Your task to perform on an android device: Go to Reddit.com Image 0: 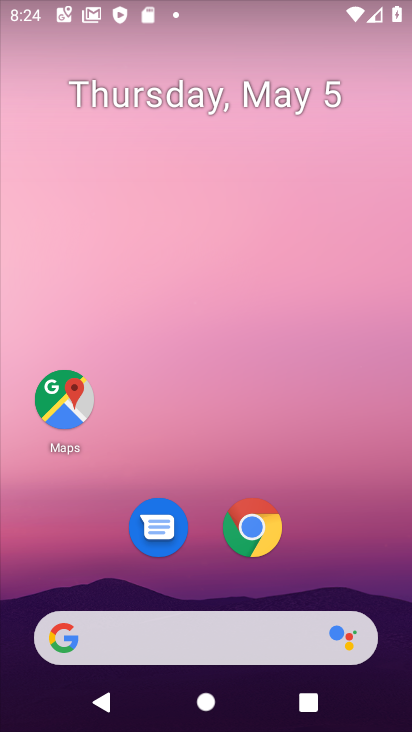
Step 0: click (263, 536)
Your task to perform on an android device: Go to Reddit.com Image 1: 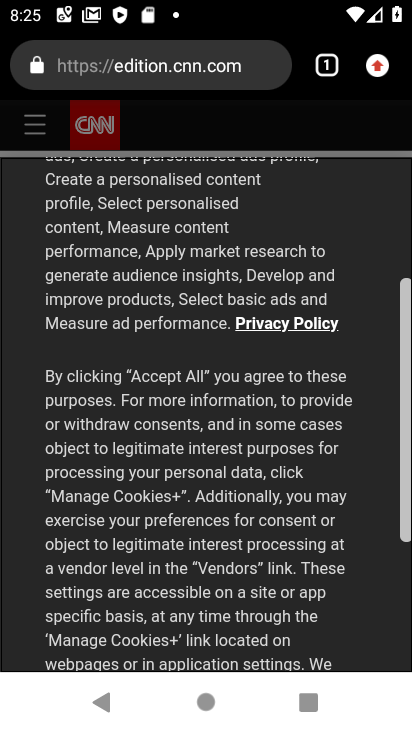
Step 1: click (323, 69)
Your task to perform on an android device: Go to Reddit.com Image 2: 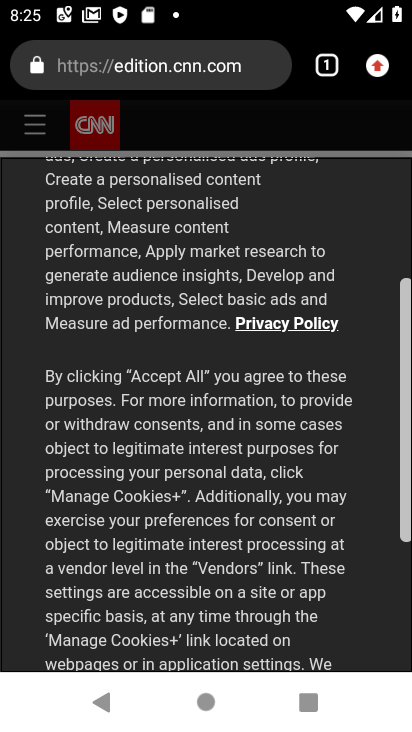
Step 2: press home button
Your task to perform on an android device: Go to Reddit.com Image 3: 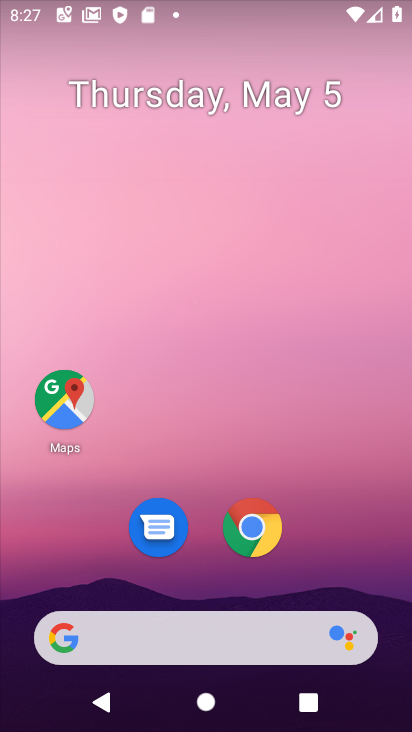
Step 3: click (240, 631)
Your task to perform on an android device: Go to Reddit.com Image 4: 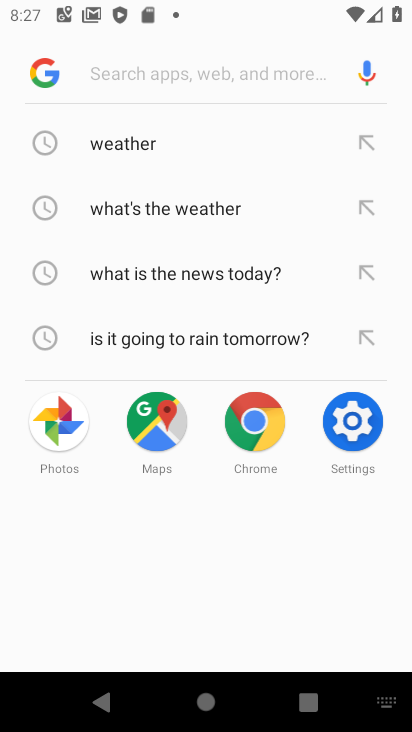
Step 4: type "reddit.com"
Your task to perform on an android device: Go to Reddit.com Image 5: 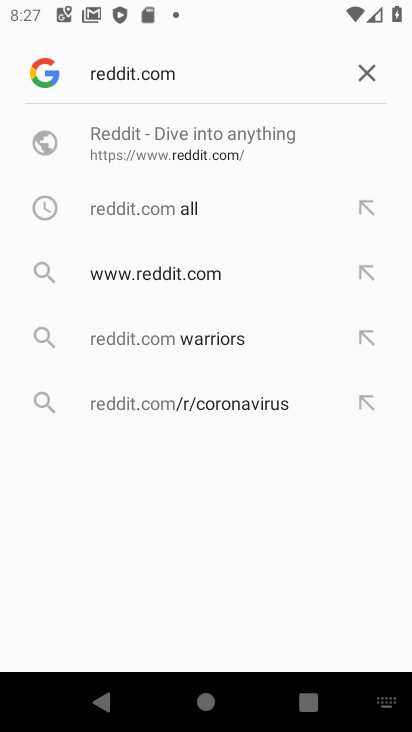
Step 5: click (244, 146)
Your task to perform on an android device: Go to Reddit.com Image 6: 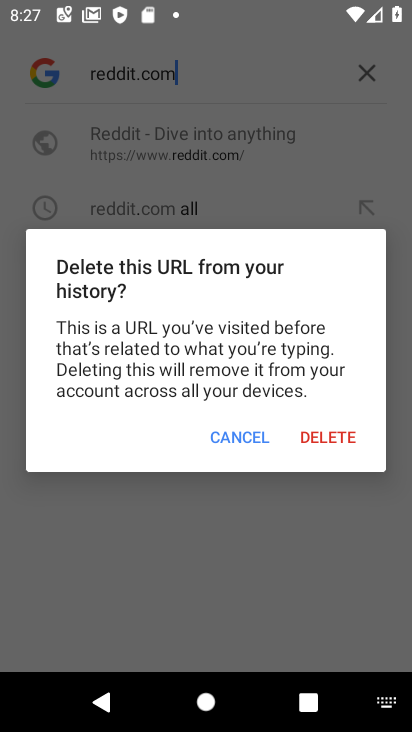
Step 6: click (253, 435)
Your task to perform on an android device: Go to Reddit.com Image 7: 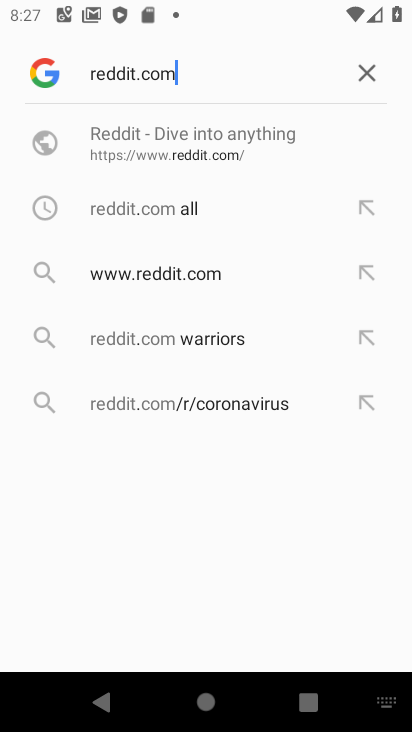
Step 7: click (236, 140)
Your task to perform on an android device: Go to Reddit.com Image 8: 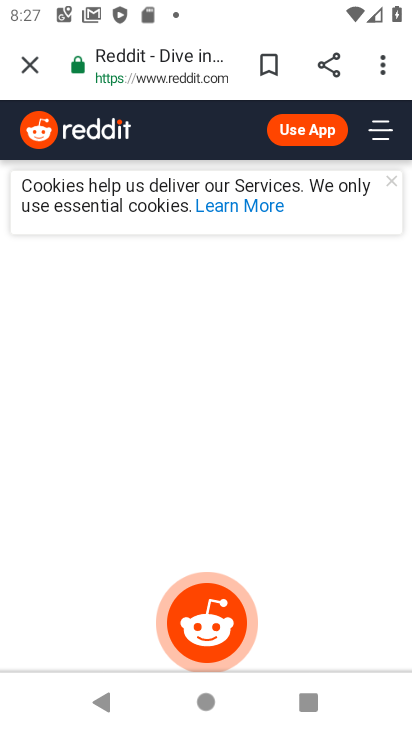
Step 8: task complete